Your task to perform on an android device: Open the stopwatch Image 0: 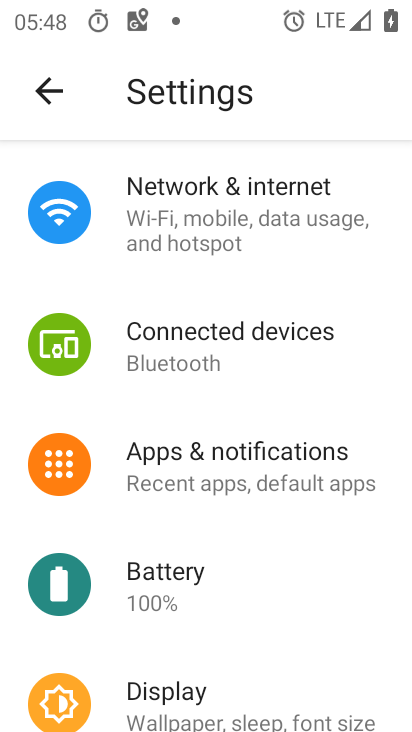
Step 0: press home button
Your task to perform on an android device: Open the stopwatch Image 1: 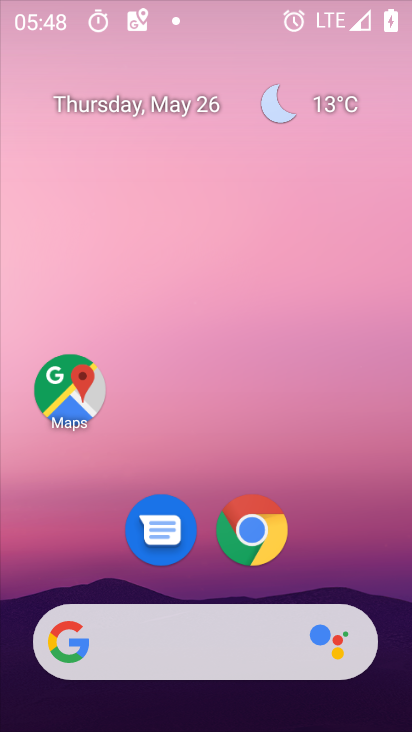
Step 1: drag from (263, 652) to (323, 130)
Your task to perform on an android device: Open the stopwatch Image 2: 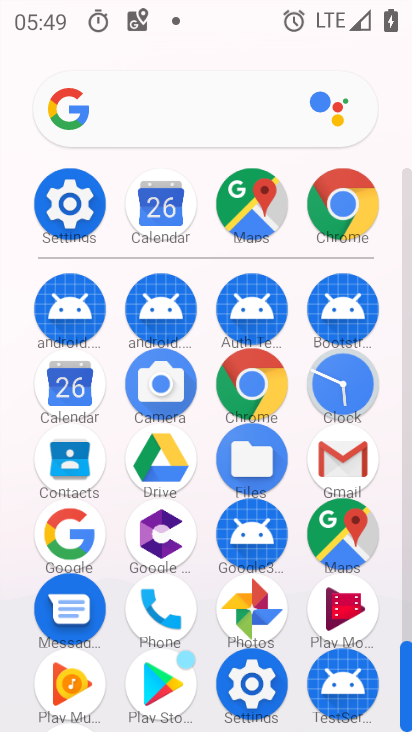
Step 2: click (343, 386)
Your task to perform on an android device: Open the stopwatch Image 3: 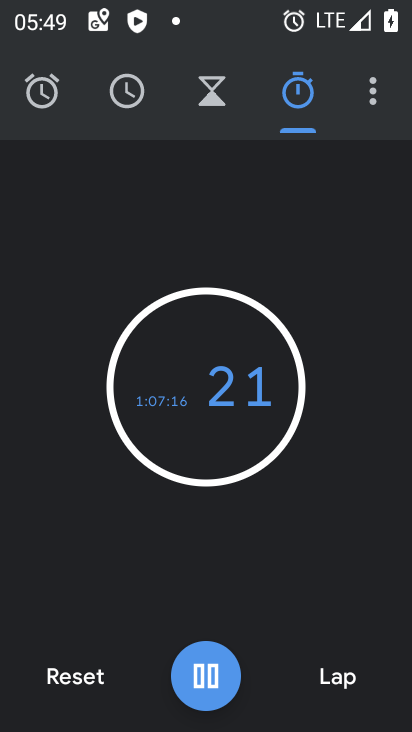
Step 3: task complete